Your task to perform on an android device: check the backup settings in the google photos Image 0: 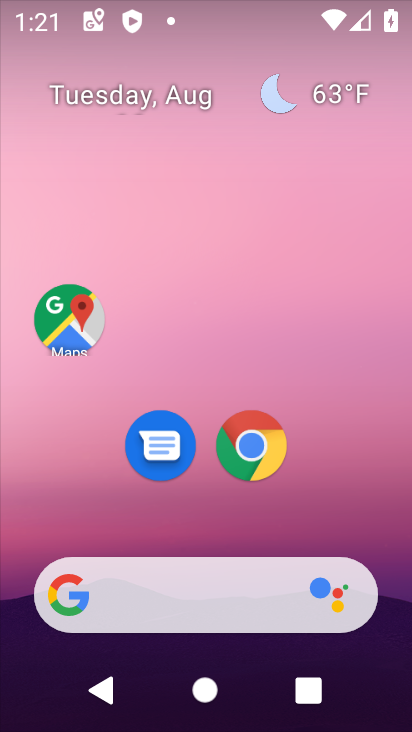
Step 0: press home button
Your task to perform on an android device: check the backup settings in the google photos Image 1: 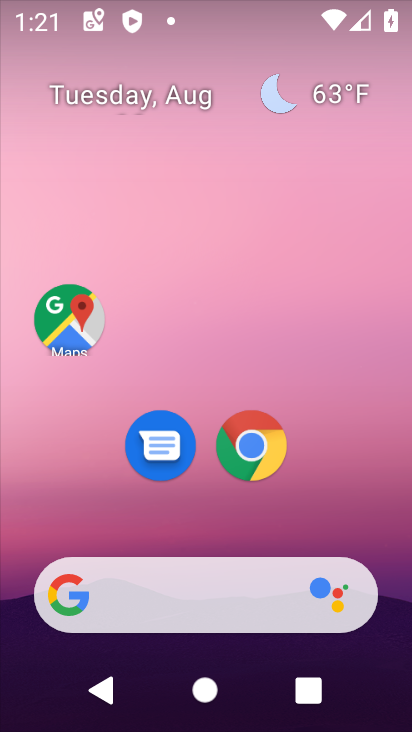
Step 1: drag from (198, 533) to (232, 84)
Your task to perform on an android device: check the backup settings in the google photos Image 2: 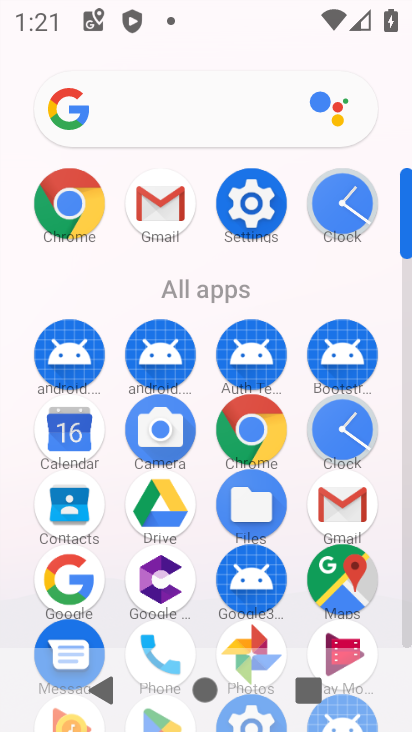
Step 2: drag from (203, 621) to (204, 212)
Your task to perform on an android device: check the backup settings in the google photos Image 3: 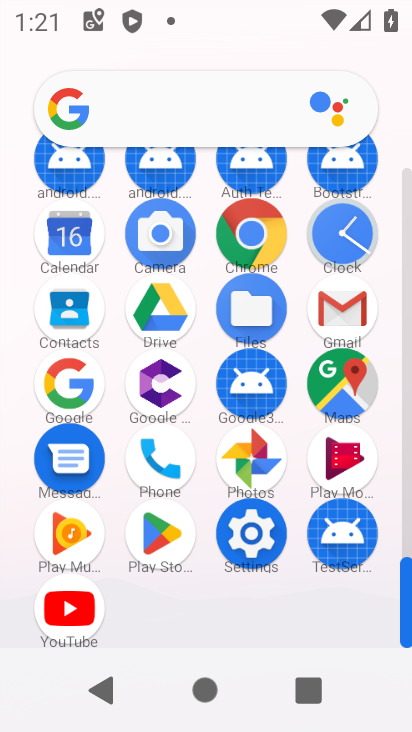
Step 3: click (253, 449)
Your task to perform on an android device: check the backup settings in the google photos Image 4: 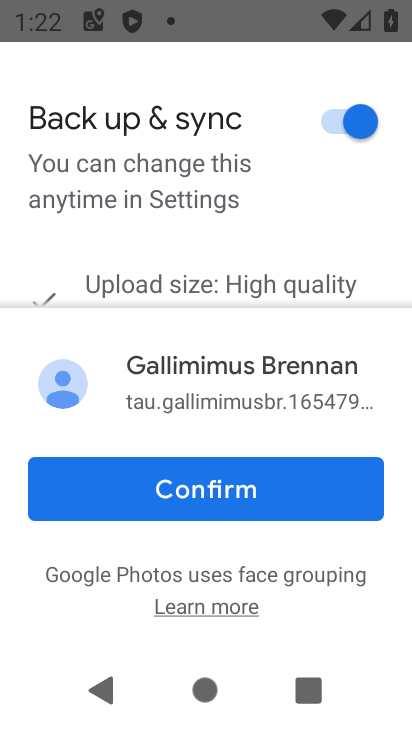
Step 4: click (207, 491)
Your task to perform on an android device: check the backup settings in the google photos Image 5: 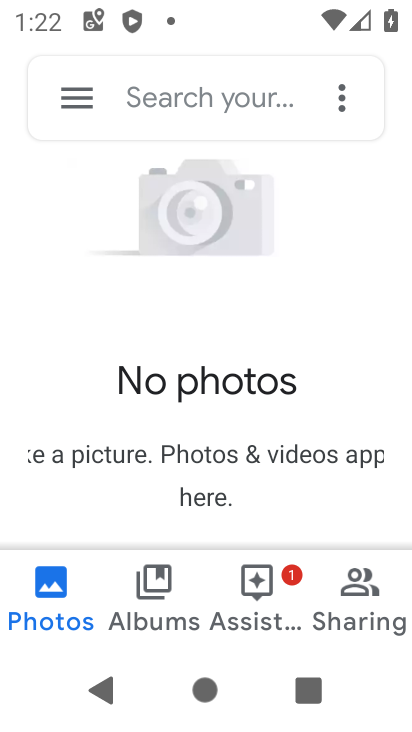
Step 5: click (73, 105)
Your task to perform on an android device: check the backup settings in the google photos Image 6: 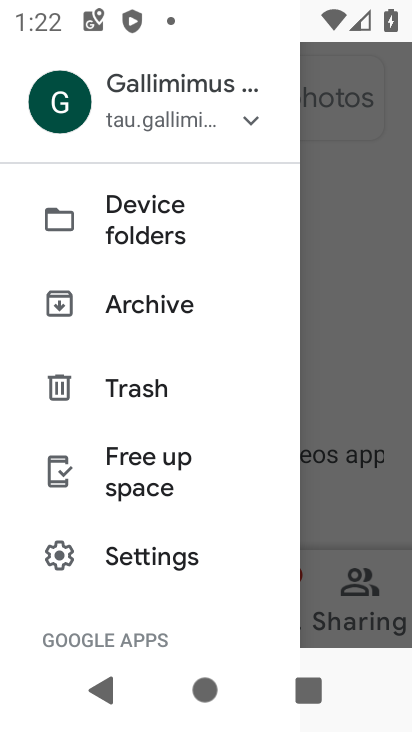
Step 6: drag from (130, 583) to (177, 92)
Your task to perform on an android device: check the backup settings in the google photos Image 7: 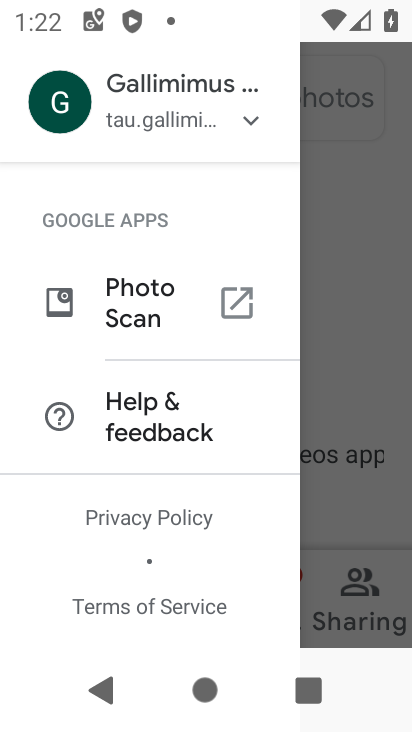
Step 7: drag from (159, 238) to (170, 560)
Your task to perform on an android device: check the backup settings in the google photos Image 8: 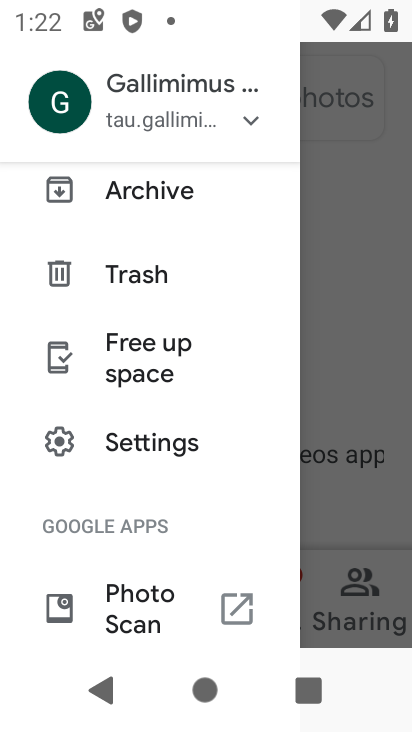
Step 8: click (98, 434)
Your task to perform on an android device: check the backup settings in the google photos Image 9: 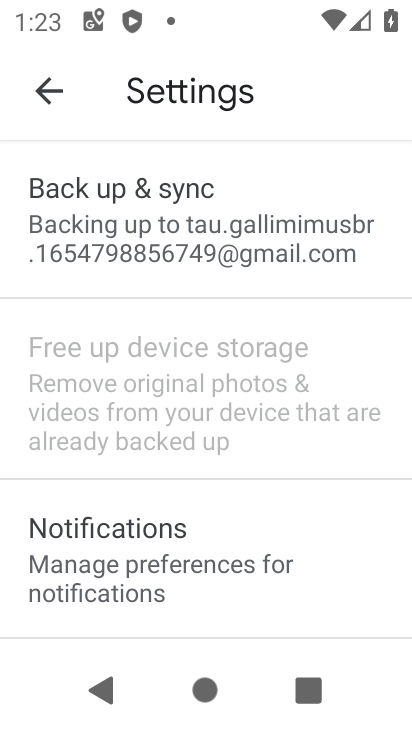
Step 9: click (179, 221)
Your task to perform on an android device: check the backup settings in the google photos Image 10: 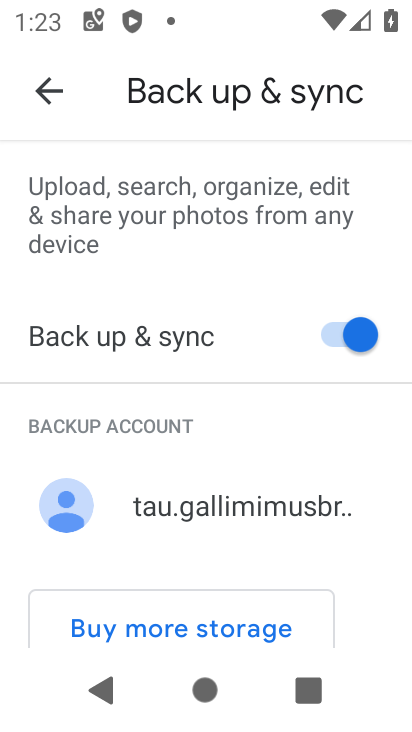
Step 10: task complete